Your task to perform on an android device: Open notification settings Image 0: 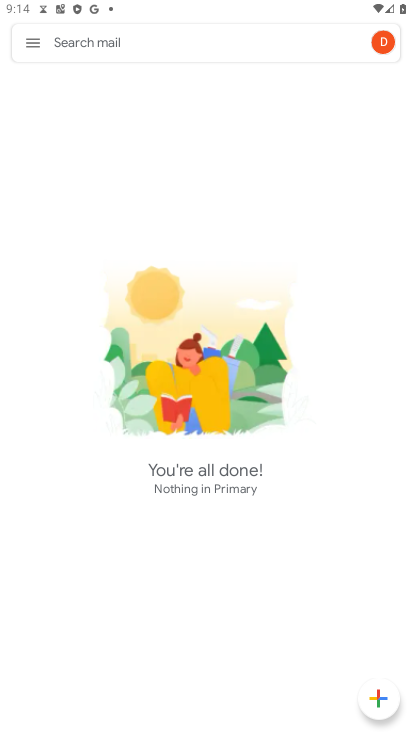
Step 0: press back button
Your task to perform on an android device: Open notification settings Image 1: 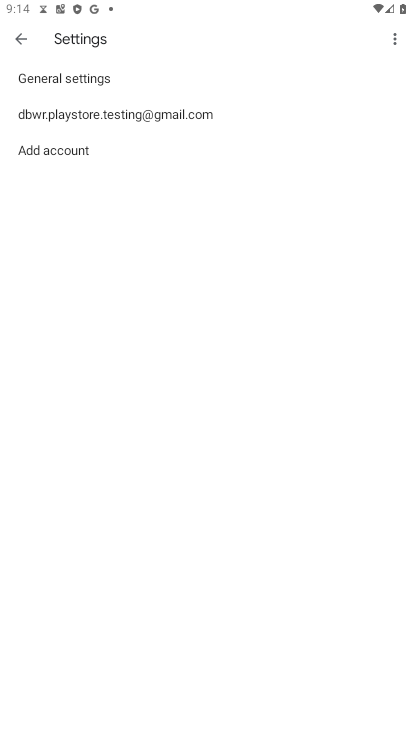
Step 1: press back button
Your task to perform on an android device: Open notification settings Image 2: 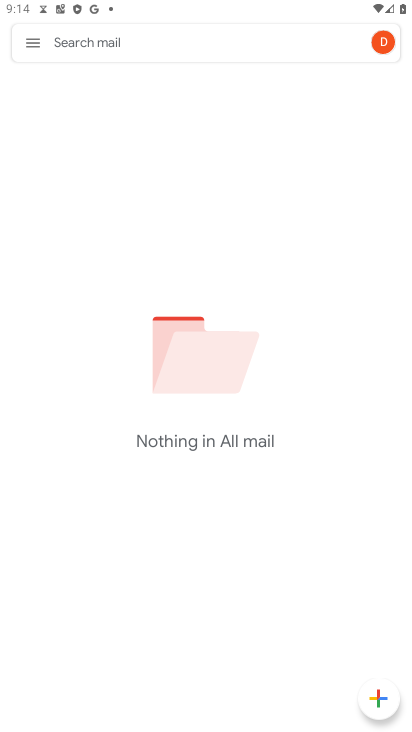
Step 2: press back button
Your task to perform on an android device: Open notification settings Image 3: 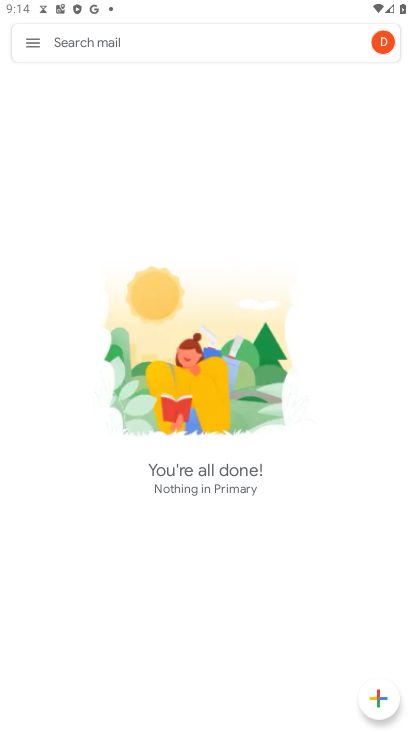
Step 3: press back button
Your task to perform on an android device: Open notification settings Image 4: 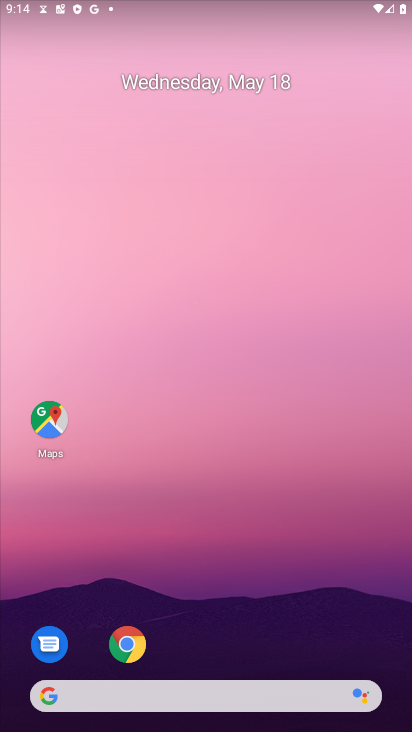
Step 4: drag from (207, 615) to (169, 78)
Your task to perform on an android device: Open notification settings Image 5: 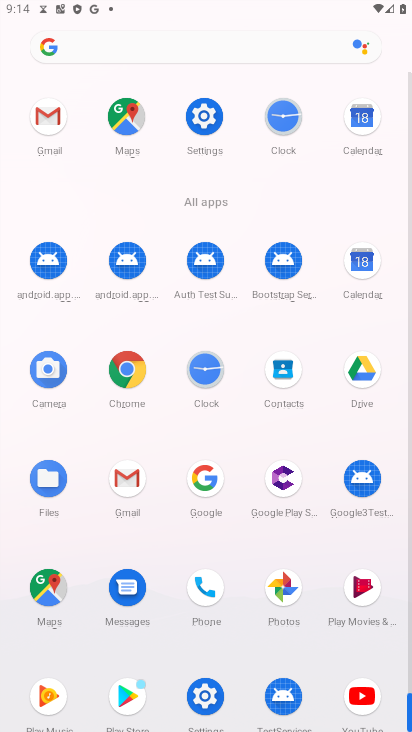
Step 5: click (205, 696)
Your task to perform on an android device: Open notification settings Image 6: 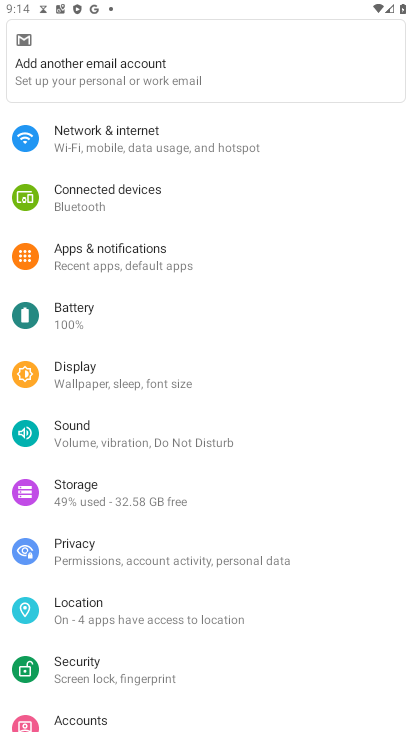
Step 6: click (131, 259)
Your task to perform on an android device: Open notification settings Image 7: 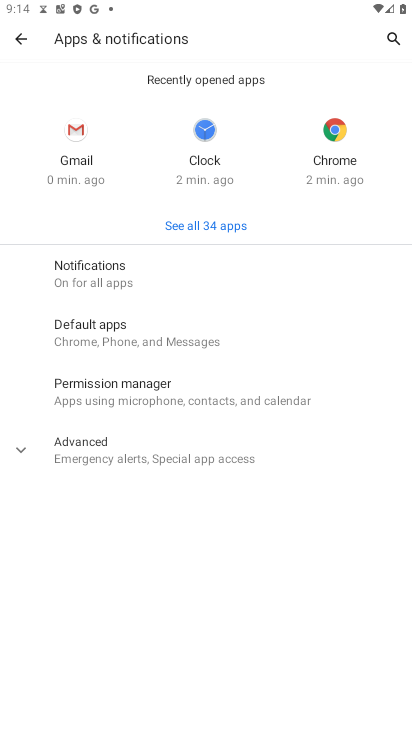
Step 7: click (115, 270)
Your task to perform on an android device: Open notification settings Image 8: 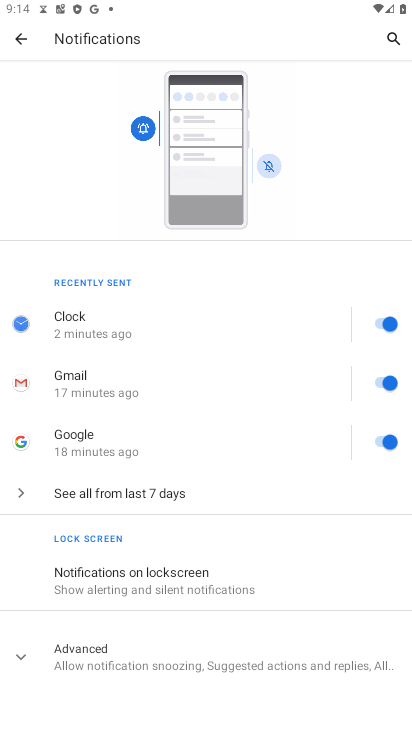
Step 8: task complete